Your task to perform on an android device: turn off wifi Image 0: 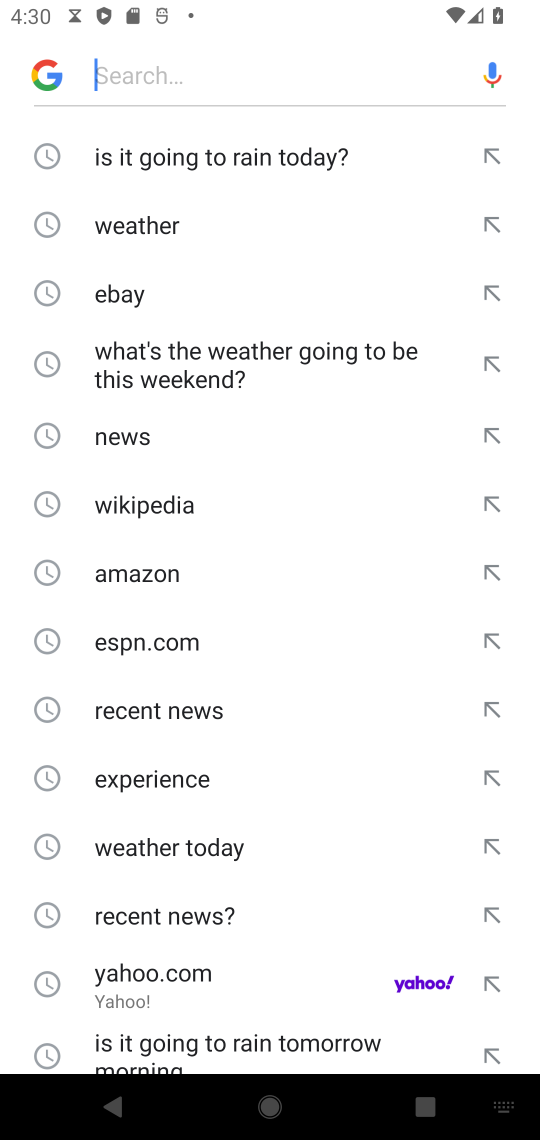
Step 0: press home button
Your task to perform on an android device: turn off wifi Image 1: 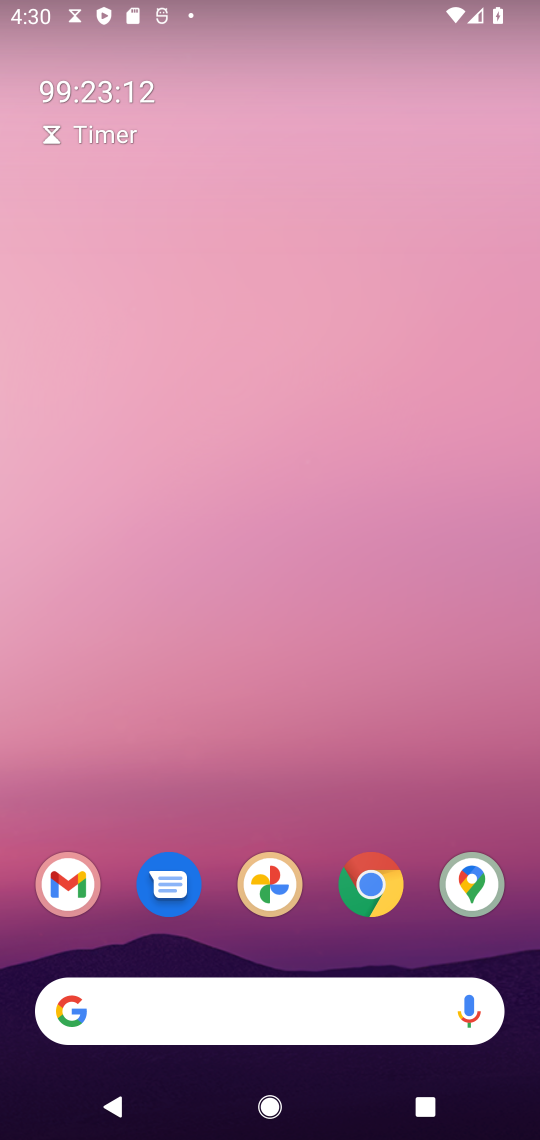
Step 1: drag from (232, 950) to (350, 155)
Your task to perform on an android device: turn off wifi Image 2: 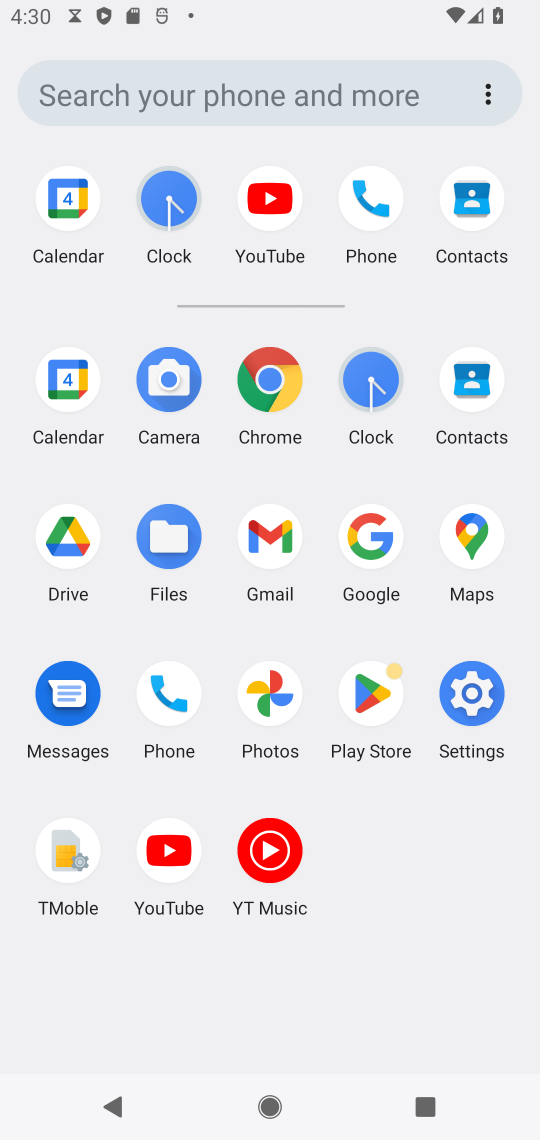
Step 2: click (487, 684)
Your task to perform on an android device: turn off wifi Image 3: 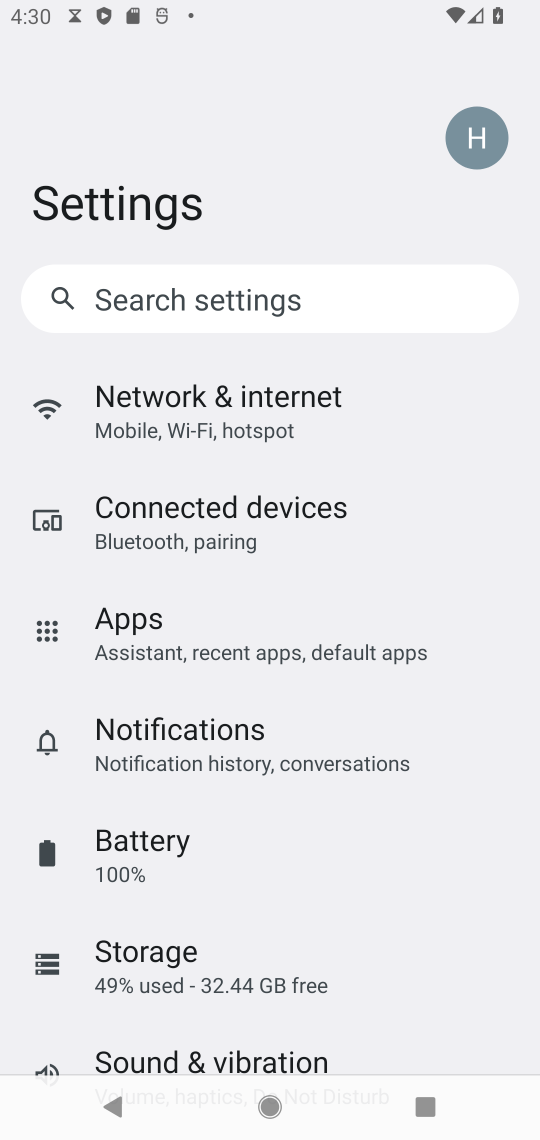
Step 3: click (298, 406)
Your task to perform on an android device: turn off wifi Image 4: 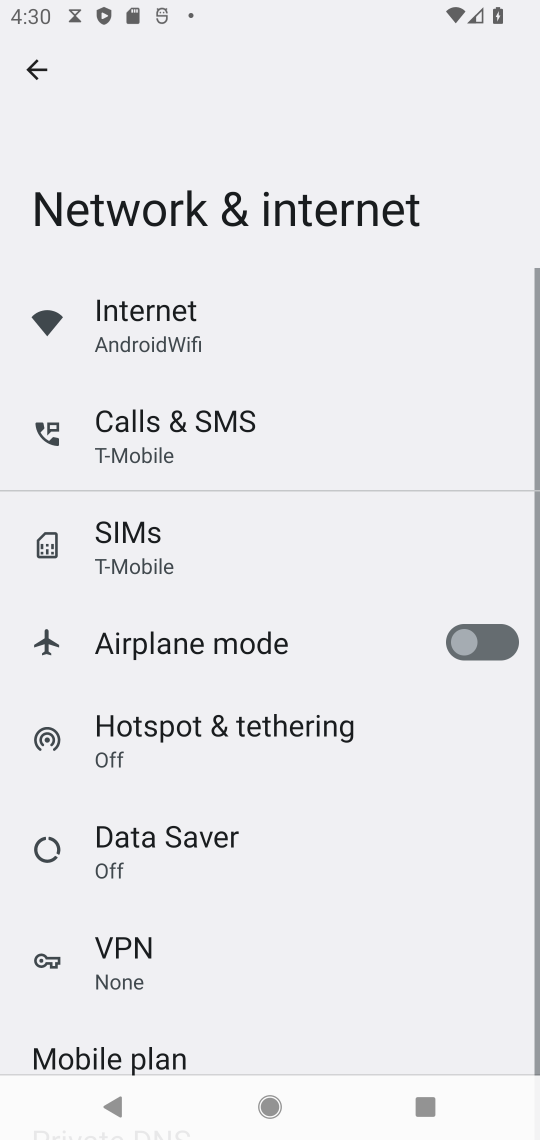
Step 4: click (218, 339)
Your task to perform on an android device: turn off wifi Image 5: 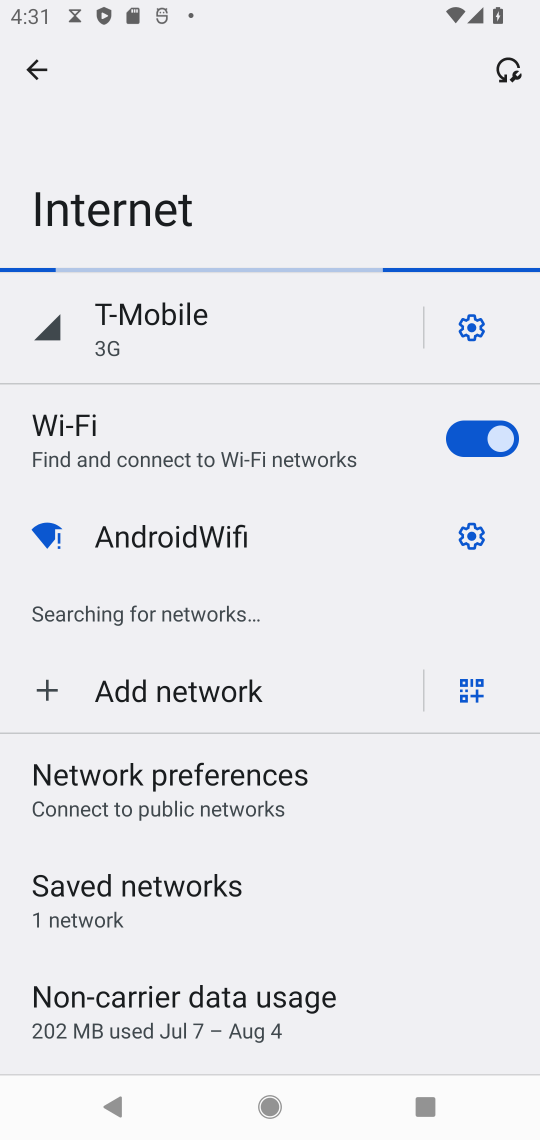
Step 5: task complete